Your task to perform on an android device: Go to calendar. Show me events next week Image 0: 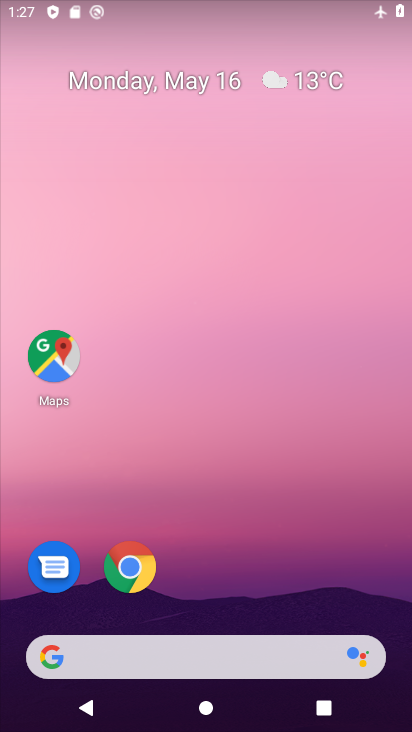
Step 0: drag from (262, 516) to (159, 51)
Your task to perform on an android device: Go to calendar. Show me events next week Image 1: 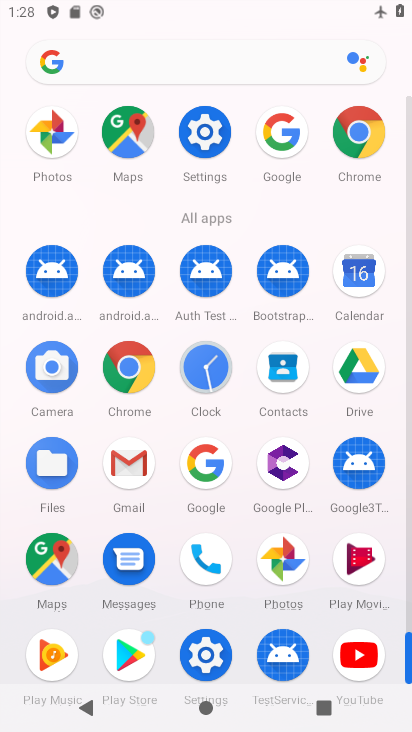
Step 1: click (363, 278)
Your task to perform on an android device: Go to calendar. Show me events next week Image 2: 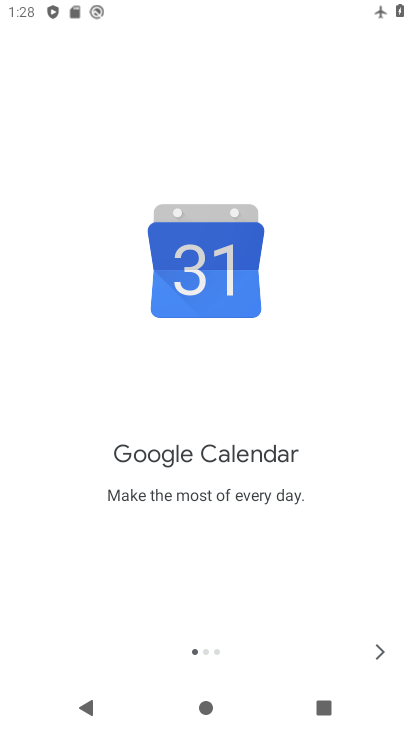
Step 2: click (381, 643)
Your task to perform on an android device: Go to calendar. Show me events next week Image 3: 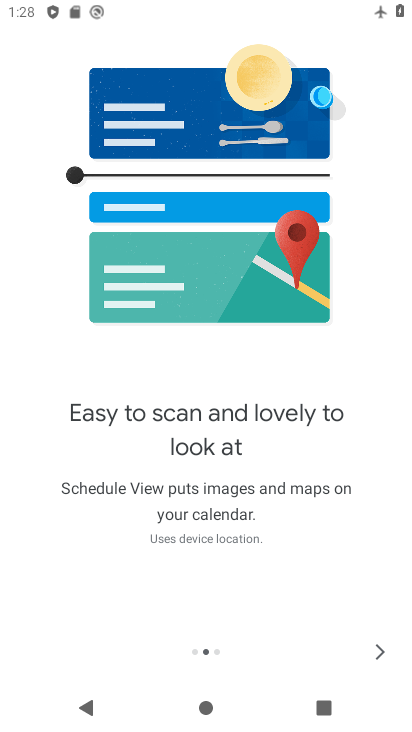
Step 3: click (381, 643)
Your task to perform on an android device: Go to calendar. Show me events next week Image 4: 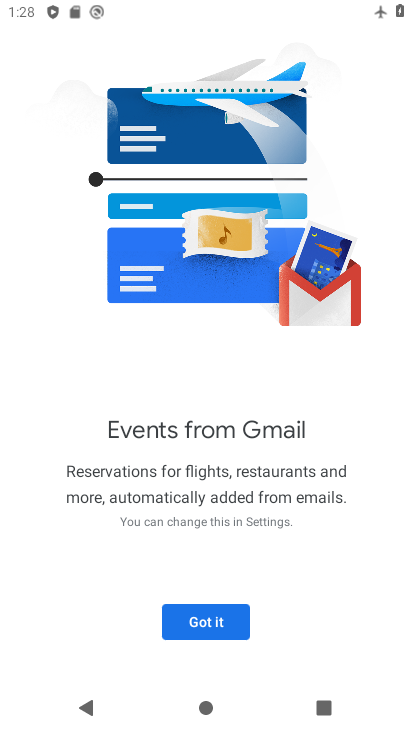
Step 4: click (213, 620)
Your task to perform on an android device: Go to calendar. Show me events next week Image 5: 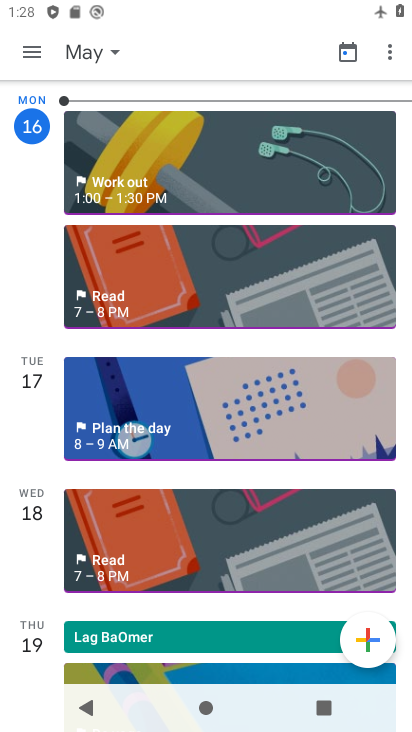
Step 5: click (33, 49)
Your task to perform on an android device: Go to calendar. Show me events next week Image 6: 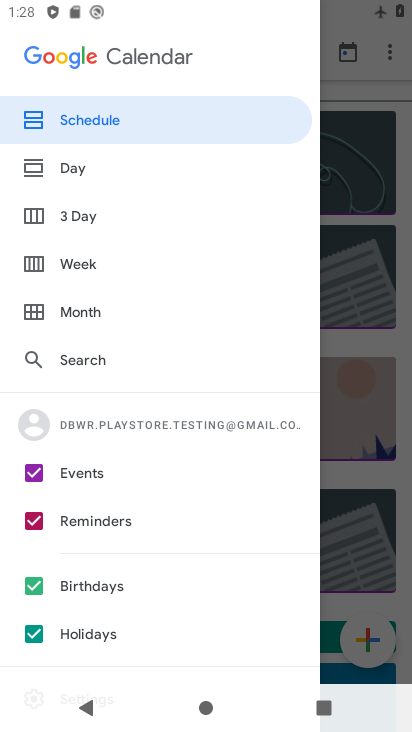
Step 6: click (72, 265)
Your task to perform on an android device: Go to calendar. Show me events next week Image 7: 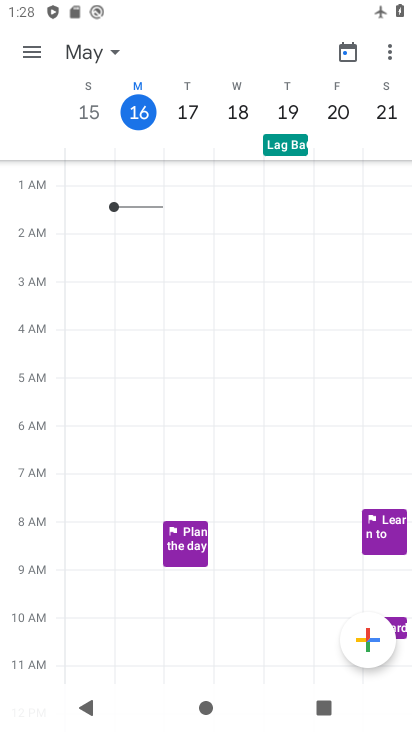
Step 7: click (118, 48)
Your task to perform on an android device: Go to calendar. Show me events next week Image 8: 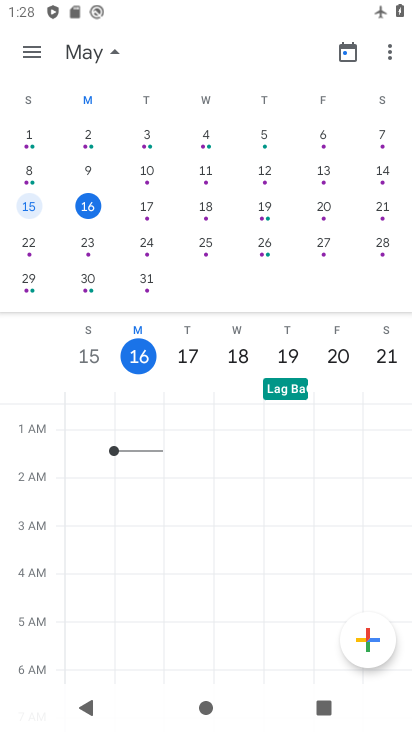
Step 8: click (88, 238)
Your task to perform on an android device: Go to calendar. Show me events next week Image 9: 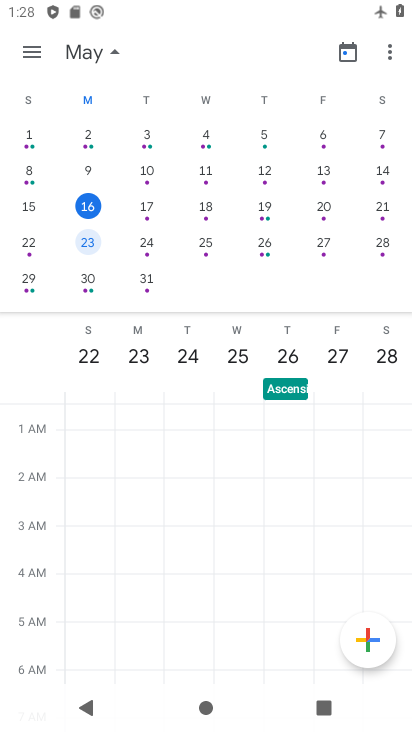
Step 9: task complete